Your task to perform on an android device: Open the web browser Image 0: 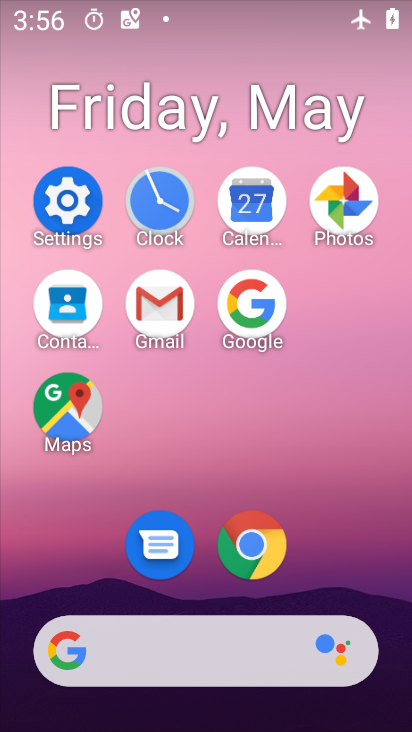
Step 0: click (256, 528)
Your task to perform on an android device: Open the web browser Image 1: 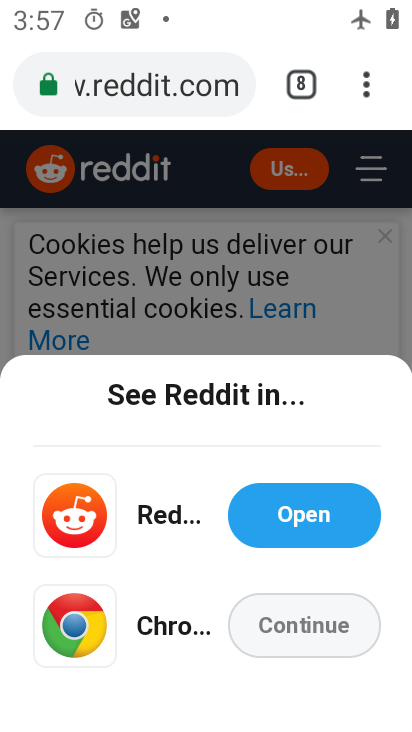
Step 1: task complete